Your task to perform on an android device: turn on notifications settings in the gmail app Image 0: 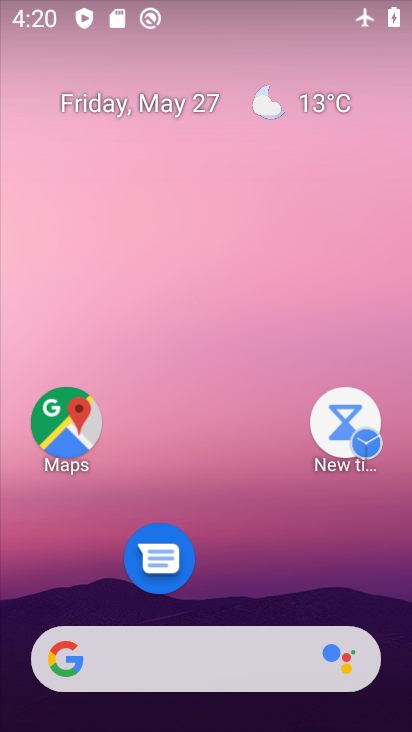
Step 0: drag from (153, 176) to (137, 122)
Your task to perform on an android device: turn on notifications settings in the gmail app Image 1: 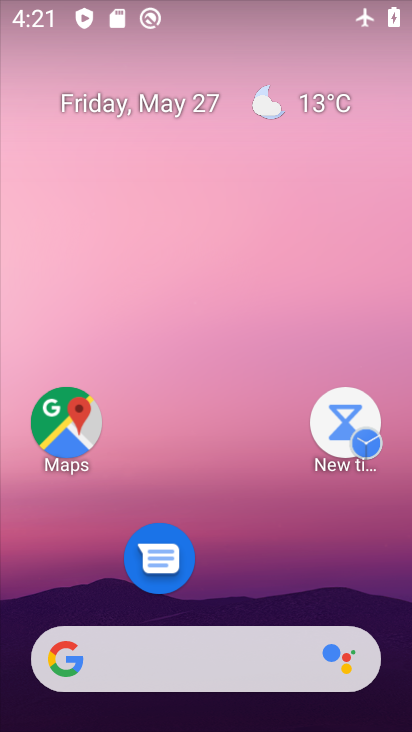
Step 1: drag from (90, 217) to (56, 65)
Your task to perform on an android device: turn on notifications settings in the gmail app Image 2: 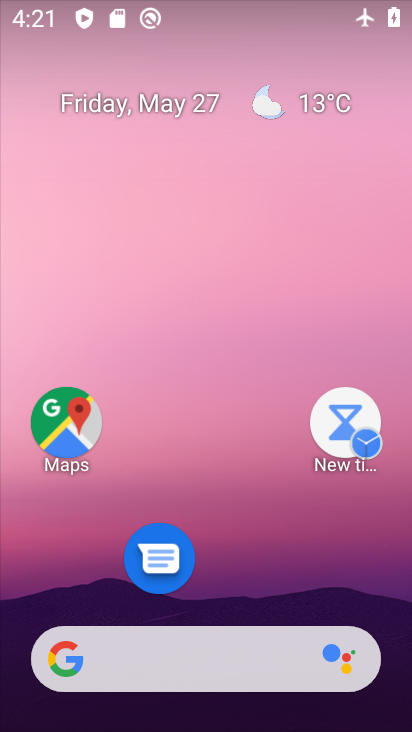
Step 2: drag from (259, 688) to (118, 78)
Your task to perform on an android device: turn on notifications settings in the gmail app Image 3: 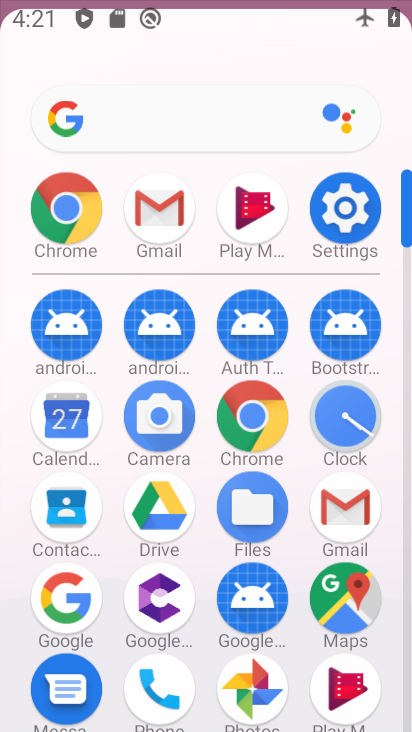
Step 3: drag from (256, 665) to (154, 287)
Your task to perform on an android device: turn on notifications settings in the gmail app Image 4: 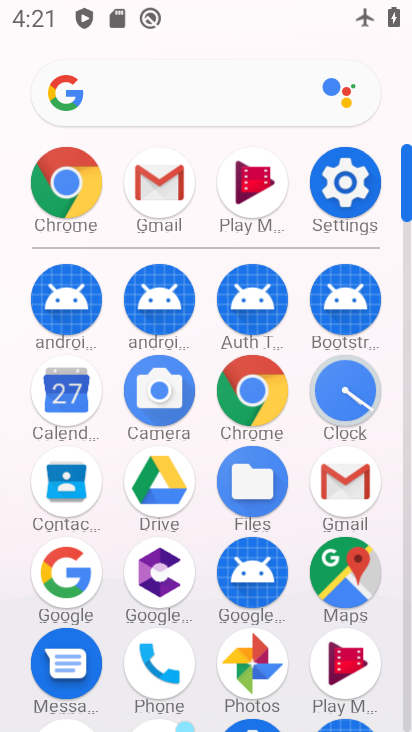
Step 4: drag from (137, 381) to (141, 220)
Your task to perform on an android device: turn on notifications settings in the gmail app Image 5: 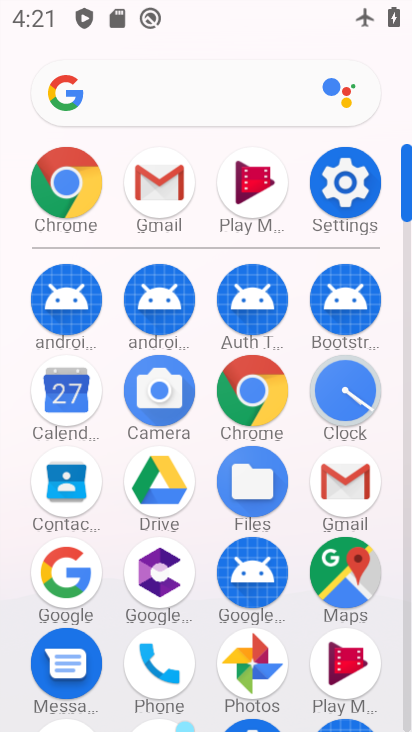
Step 5: click (321, 479)
Your task to perform on an android device: turn on notifications settings in the gmail app Image 6: 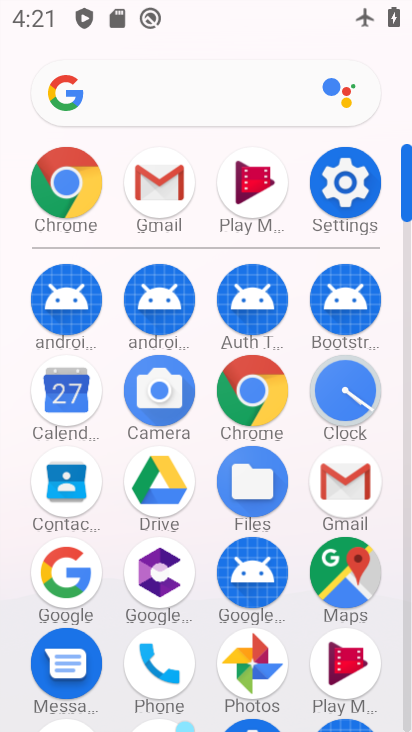
Step 6: click (324, 480)
Your task to perform on an android device: turn on notifications settings in the gmail app Image 7: 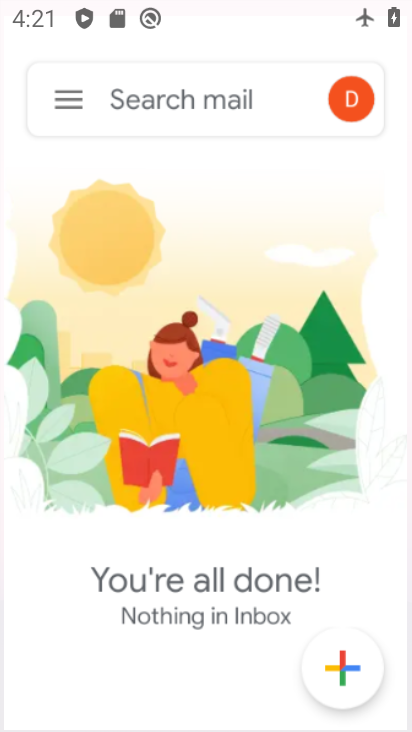
Step 7: click (321, 487)
Your task to perform on an android device: turn on notifications settings in the gmail app Image 8: 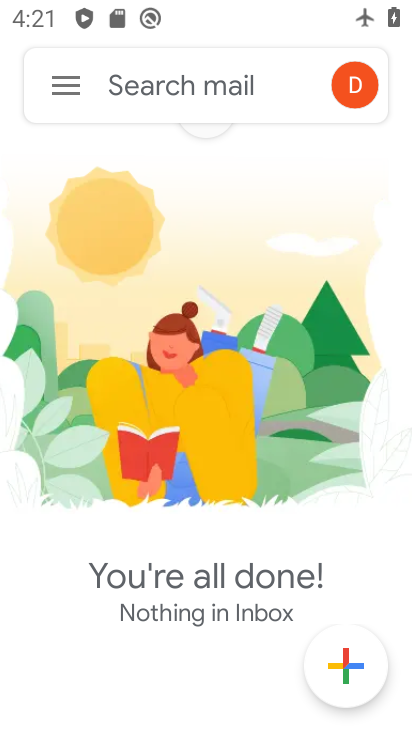
Step 8: click (314, 488)
Your task to perform on an android device: turn on notifications settings in the gmail app Image 9: 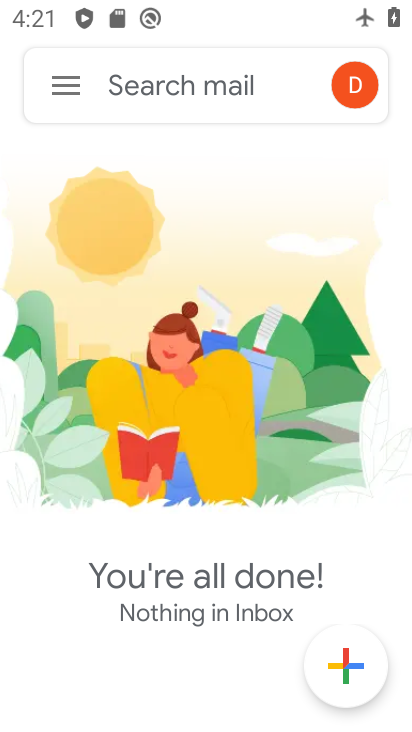
Step 9: click (331, 491)
Your task to perform on an android device: turn on notifications settings in the gmail app Image 10: 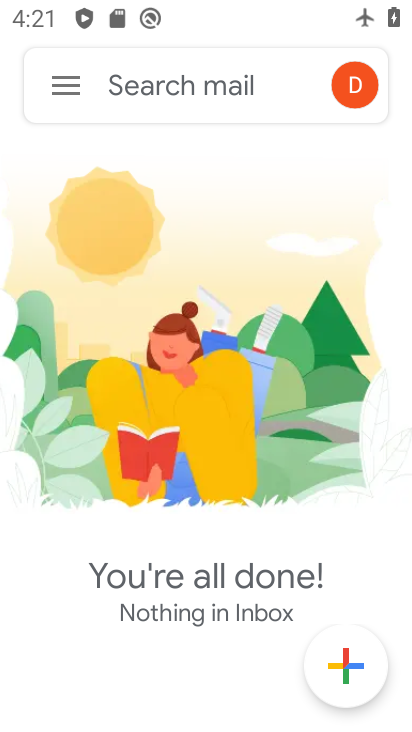
Step 10: click (333, 490)
Your task to perform on an android device: turn on notifications settings in the gmail app Image 11: 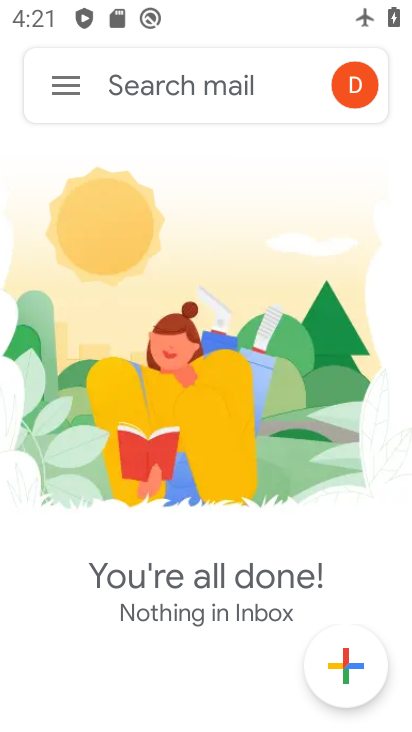
Step 11: click (74, 95)
Your task to perform on an android device: turn on notifications settings in the gmail app Image 12: 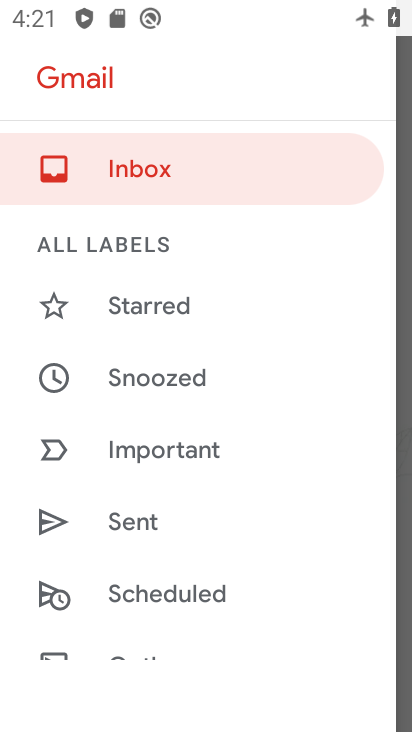
Step 12: drag from (132, 536) to (110, 147)
Your task to perform on an android device: turn on notifications settings in the gmail app Image 13: 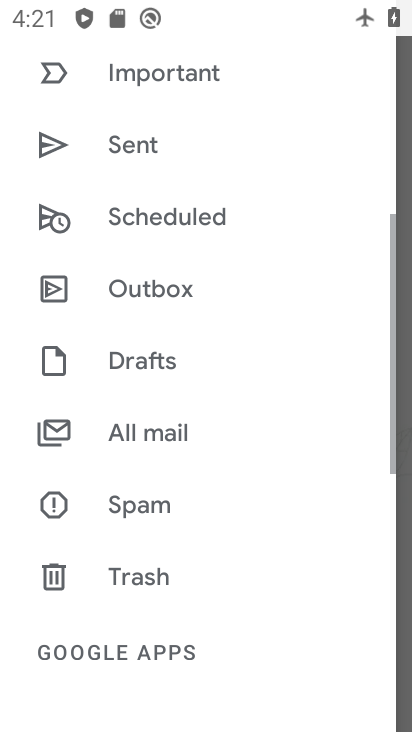
Step 13: drag from (170, 518) to (154, 64)
Your task to perform on an android device: turn on notifications settings in the gmail app Image 14: 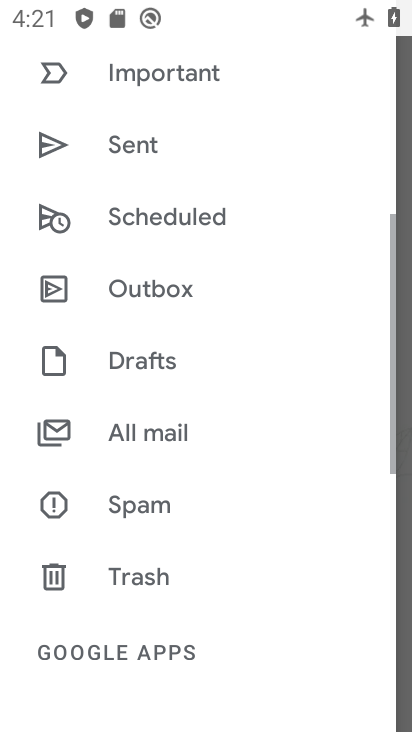
Step 14: drag from (152, 167) to (152, 38)
Your task to perform on an android device: turn on notifications settings in the gmail app Image 15: 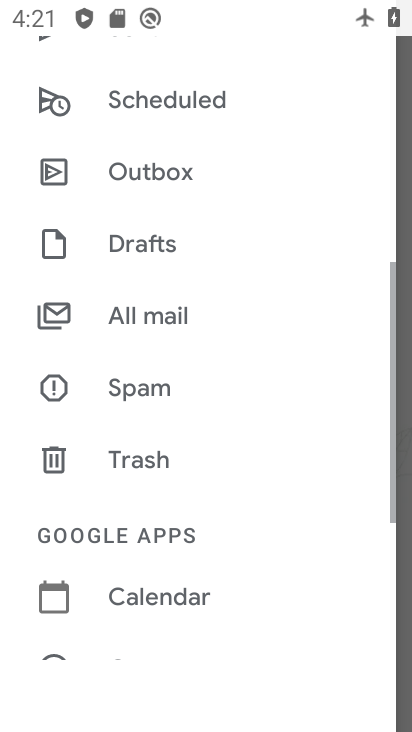
Step 15: click (199, 89)
Your task to perform on an android device: turn on notifications settings in the gmail app Image 16: 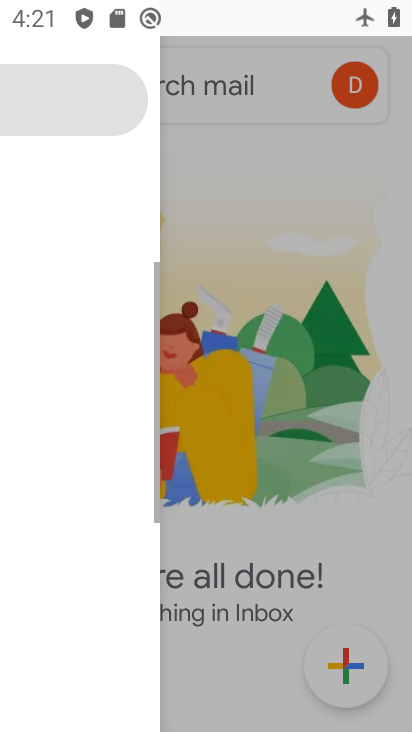
Step 16: drag from (140, 292) to (129, 166)
Your task to perform on an android device: turn on notifications settings in the gmail app Image 17: 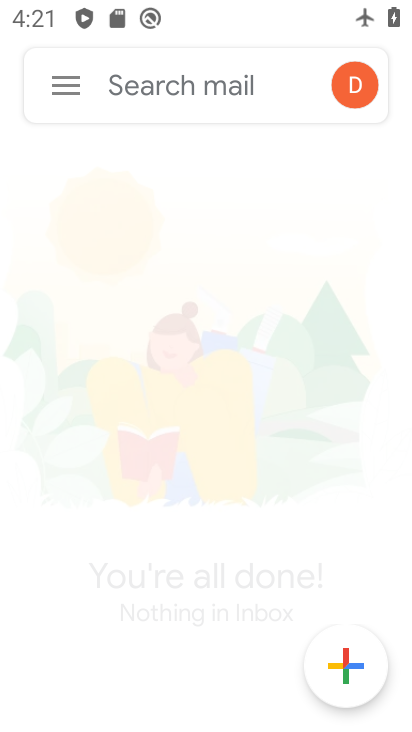
Step 17: drag from (165, 566) to (152, 100)
Your task to perform on an android device: turn on notifications settings in the gmail app Image 18: 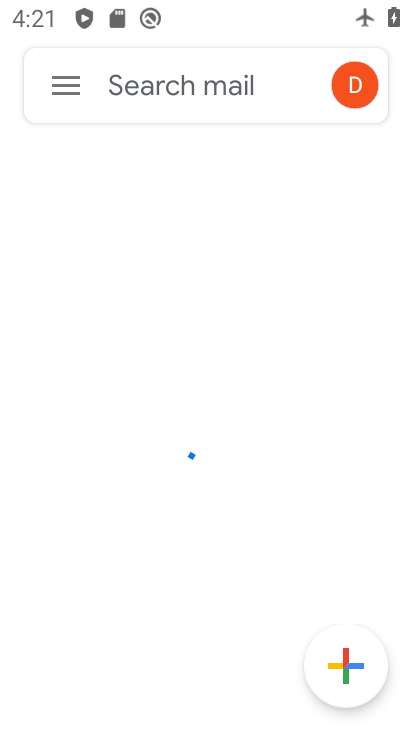
Step 18: click (64, 87)
Your task to perform on an android device: turn on notifications settings in the gmail app Image 19: 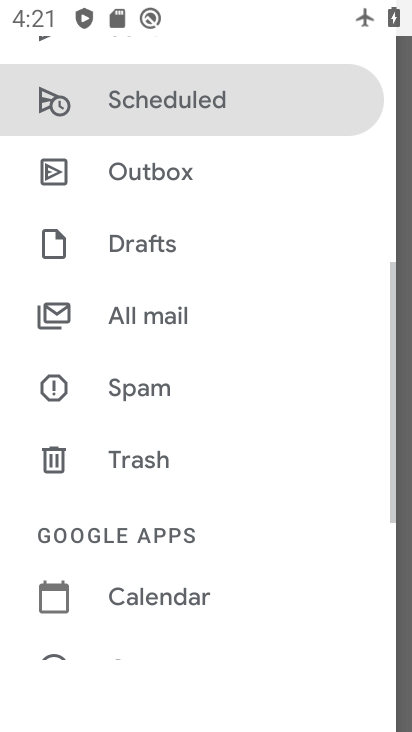
Step 19: drag from (113, 527) to (105, 149)
Your task to perform on an android device: turn on notifications settings in the gmail app Image 20: 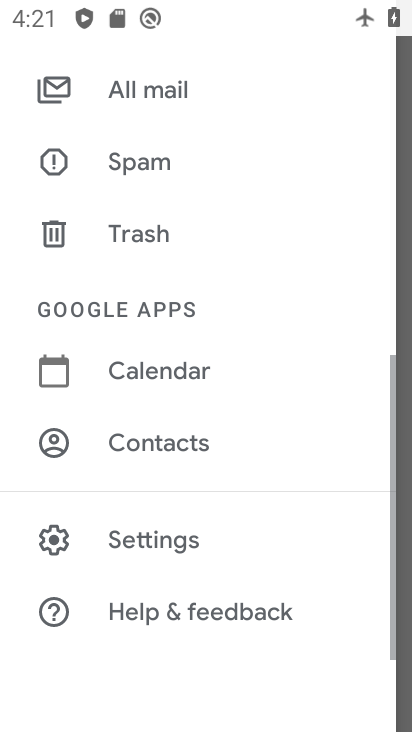
Step 20: drag from (176, 504) to (130, 103)
Your task to perform on an android device: turn on notifications settings in the gmail app Image 21: 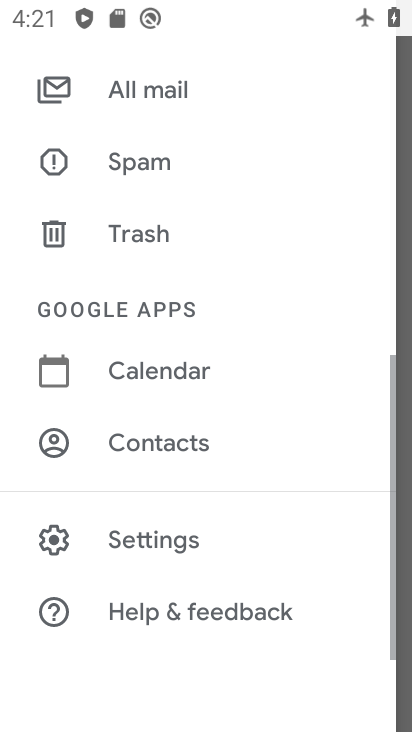
Step 21: drag from (142, 473) to (148, 31)
Your task to perform on an android device: turn on notifications settings in the gmail app Image 22: 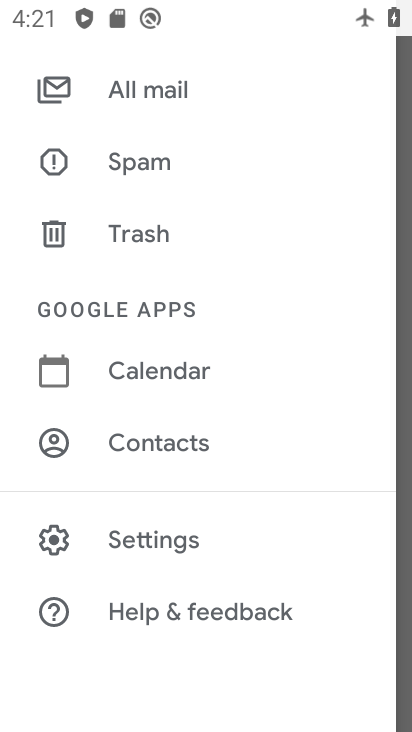
Step 22: click (133, 541)
Your task to perform on an android device: turn on notifications settings in the gmail app Image 23: 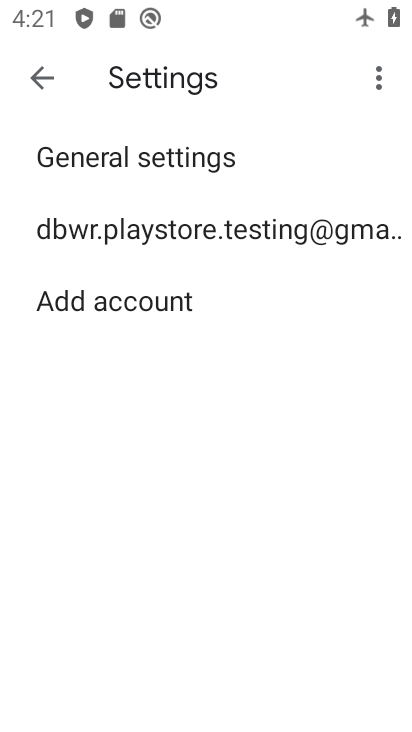
Step 23: click (183, 225)
Your task to perform on an android device: turn on notifications settings in the gmail app Image 24: 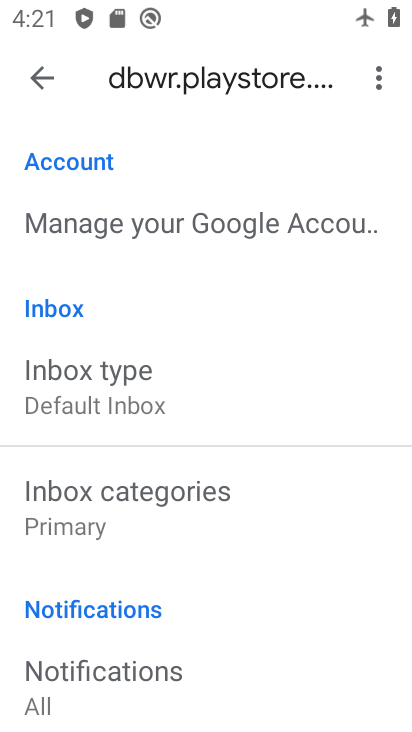
Step 24: click (84, 669)
Your task to perform on an android device: turn on notifications settings in the gmail app Image 25: 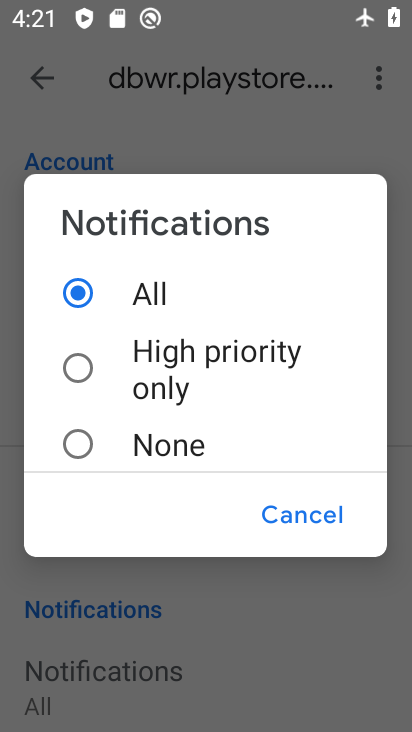
Step 25: click (78, 364)
Your task to perform on an android device: turn on notifications settings in the gmail app Image 26: 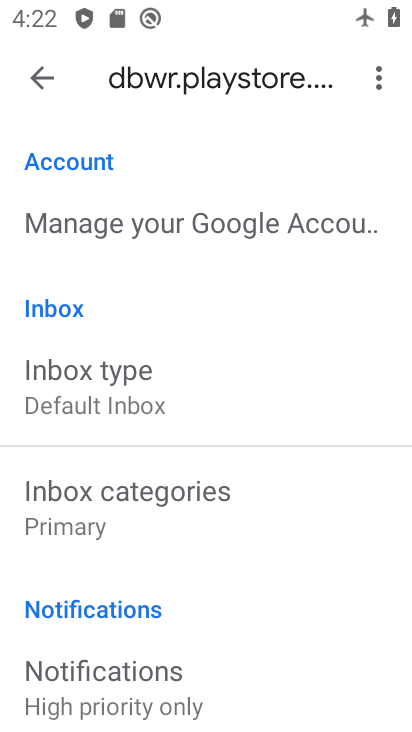
Step 26: click (62, 676)
Your task to perform on an android device: turn on notifications settings in the gmail app Image 27: 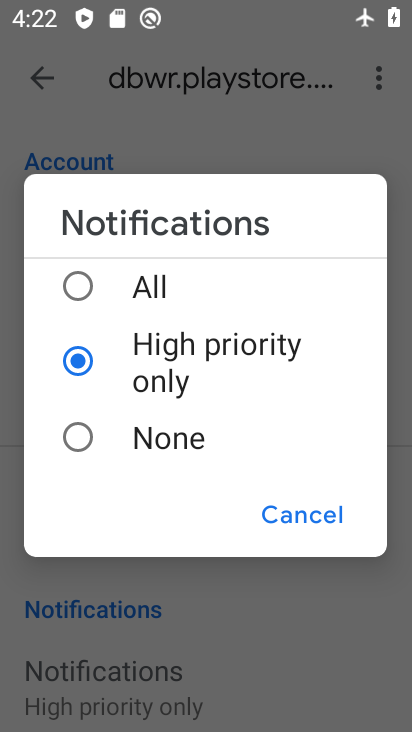
Step 27: click (73, 283)
Your task to perform on an android device: turn on notifications settings in the gmail app Image 28: 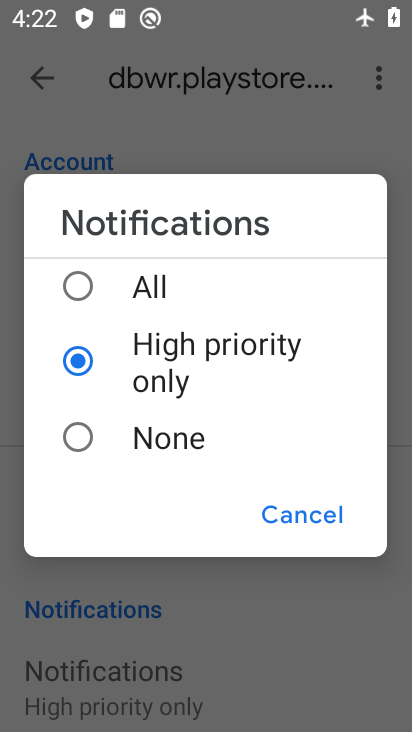
Step 28: click (73, 285)
Your task to perform on an android device: turn on notifications settings in the gmail app Image 29: 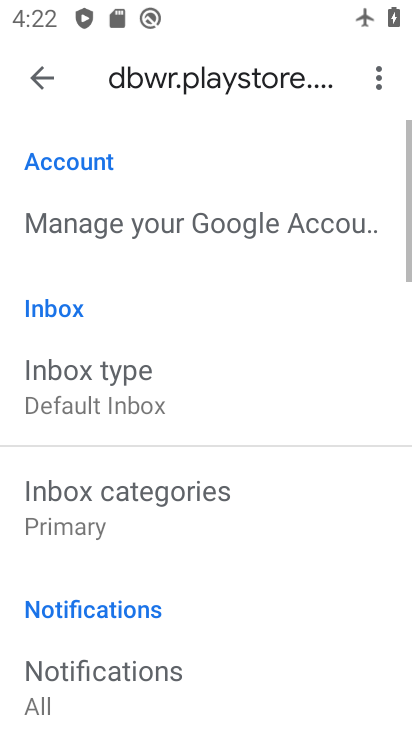
Step 29: click (73, 285)
Your task to perform on an android device: turn on notifications settings in the gmail app Image 30: 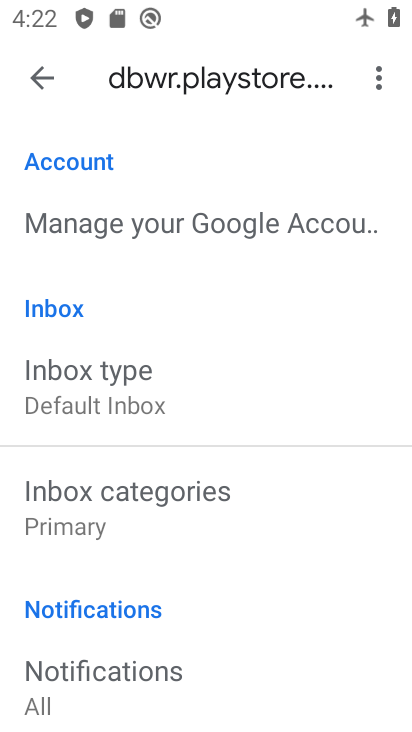
Step 30: task complete